Your task to perform on an android device: add a contact in the contacts app Image 0: 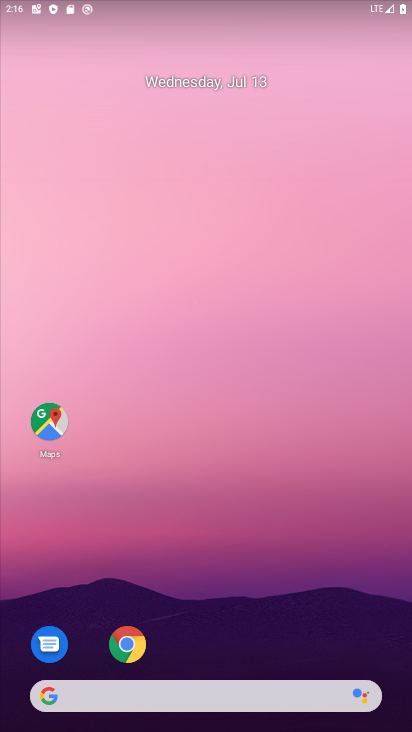
Step 0: drag from (304, 598) to (245, 146)
Your task to perform on an android device: add a contact in the contacts app Image 1: 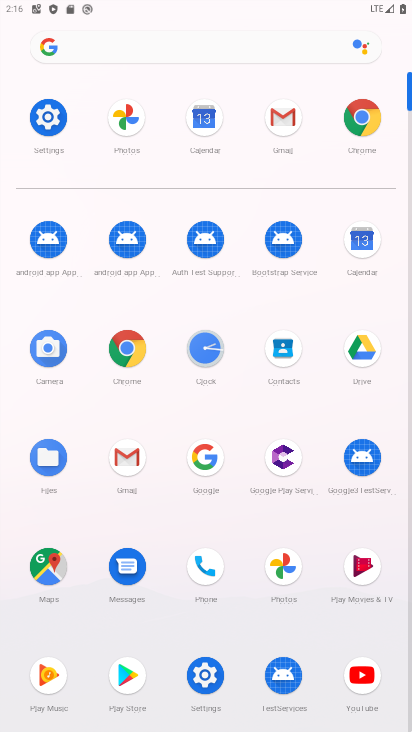
Step 1: click (291, 349)
Your task to perform on an android device: add a contact in the contacts app Image 2: 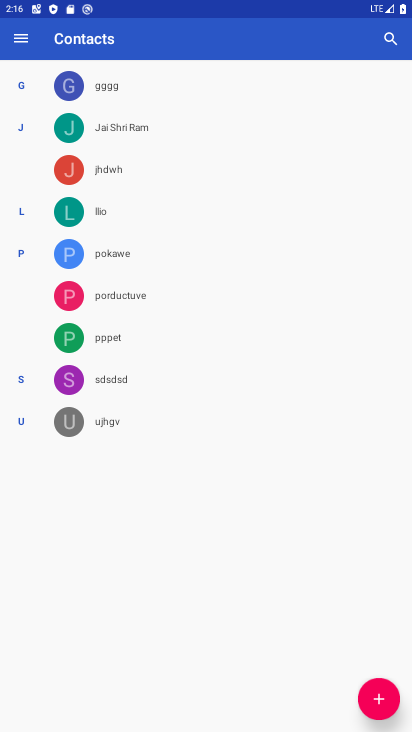
Step 2: click (387, 694)
Your task to perform on an android device: add a contact in the contacts app Image 3: 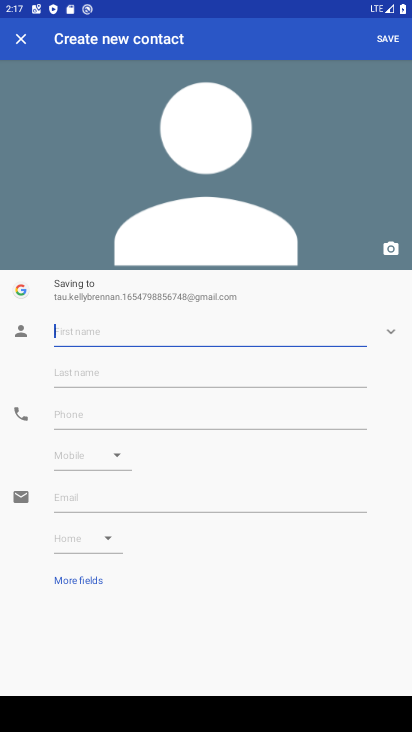
Step 3: type "munny ne kuchh nahi bataya"
Your task to perform on an android device: add a contact in the contacts app Image 4: 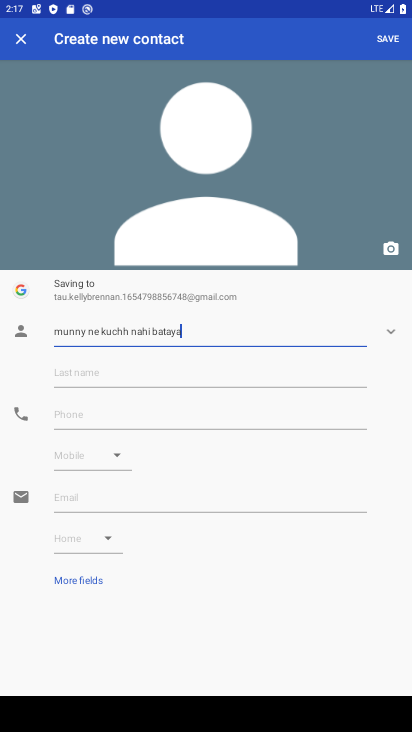
Step 4: click (395, 39)
Your task to perform on an android device: add a contact in the contacts app Image 5: 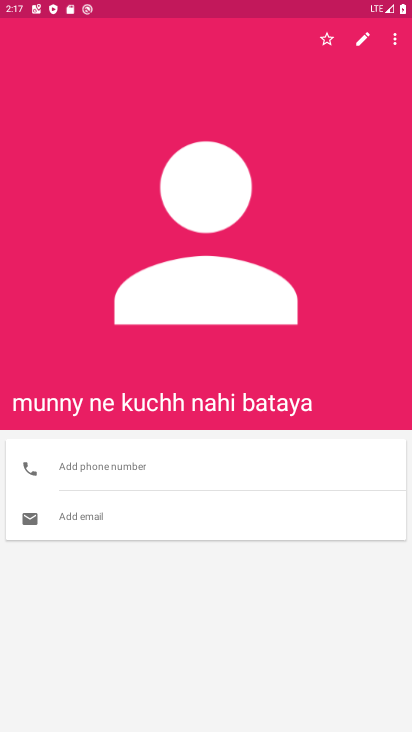
Step 5: task complete